Your task to perform on an android device: allow cookies in the chrome app Image 0: 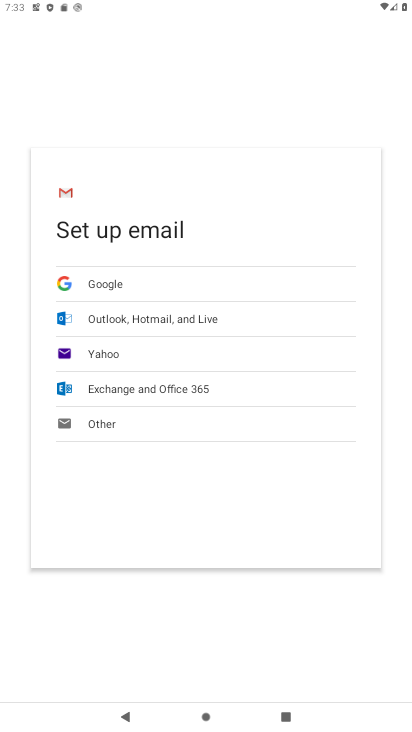
Step 0: press home button
Your task to perform on an android device: allow cookies in the chrome app Image 1: 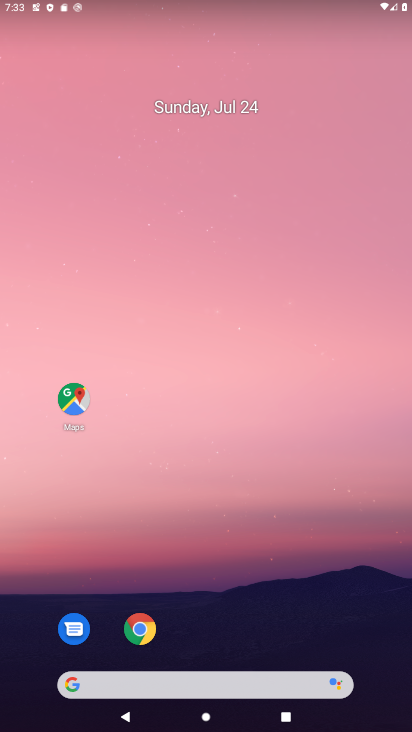
Step 1: drag from (333, 615) to (371, 147)
Your task to perform on an android device: allow cookies in the chrome app Image 2: 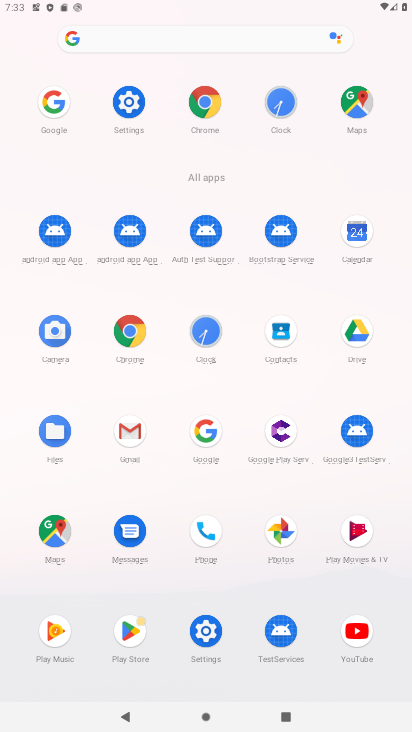
Step 2: click (133, 333)
Your task to perform on an android device: allow cookies in the chrome app Image 3: 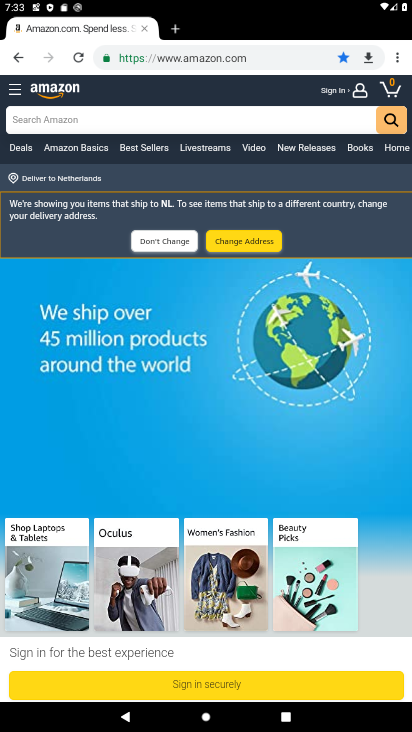
Step 3: click (396, 57)
Your task to perform on an android device: allow cookies in the chrome app Image 4: 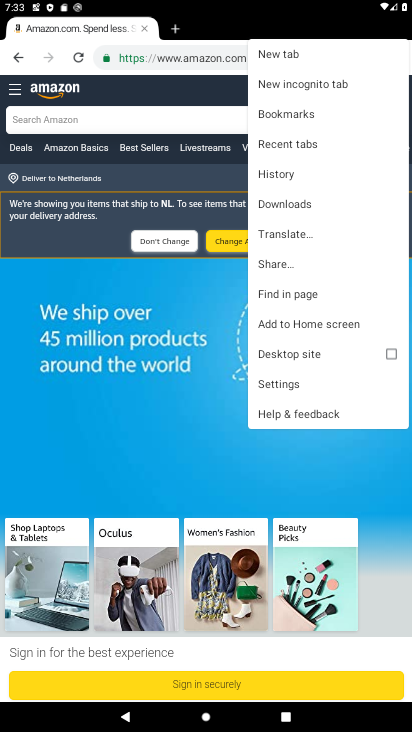
Step 4: click (293, 384)
Your task to perform on an android device: allow cookies in the chrome app Image 5: 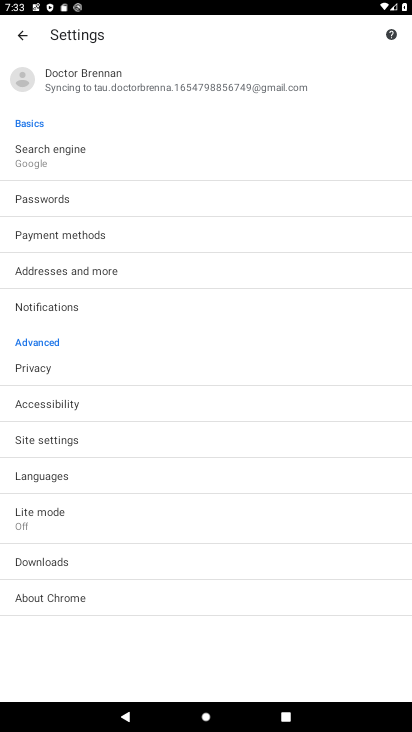
Step 5: drag from (299, 524) to (296, 406)
Your task to perform on an android device: allow cookies in the chrome app Image 6: 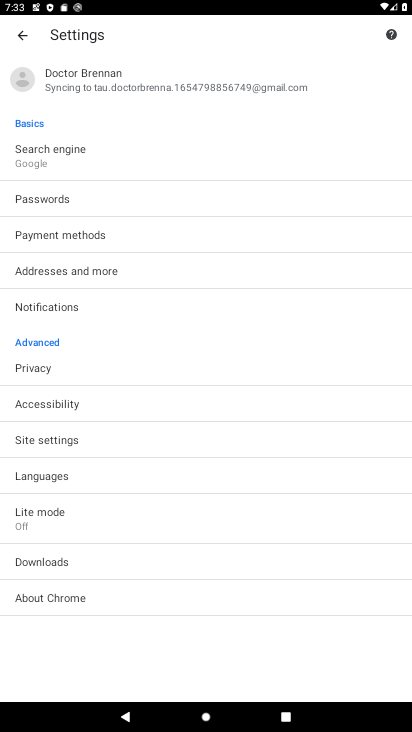
Step 6: drag from (293, 255) to (290, 398)
Your task to perform on an android device: allow cookies in the chrome app Image 7: 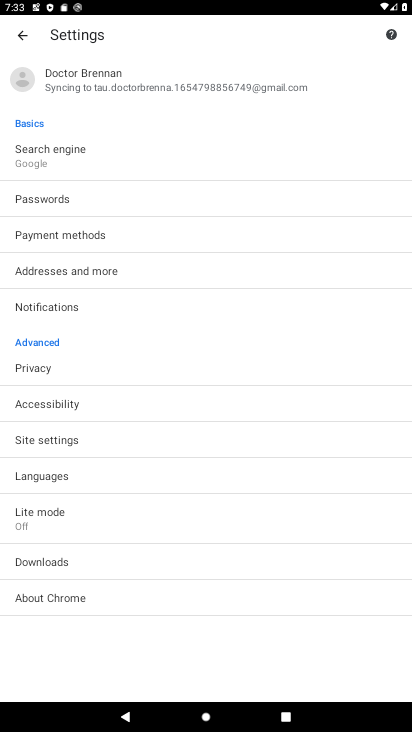
Step 7: click (269, 441)
Your task to perform on an android device: allow cookies in the chrome app Image 8: 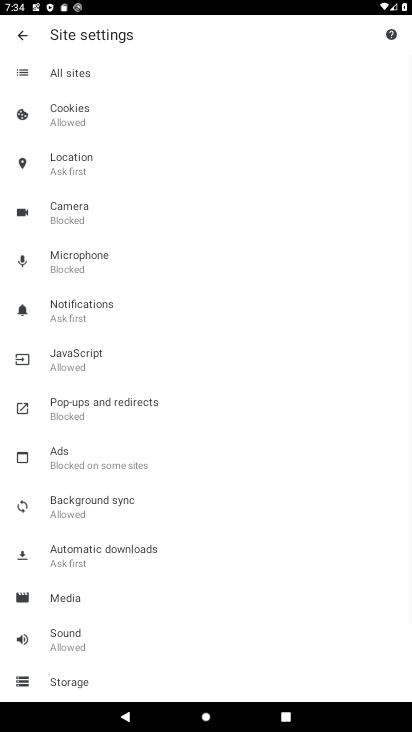
Step 8: drag from (283, 485) to (311, 363)
Your task to perform on an android device: allow cookies in the chrome app Image 9: 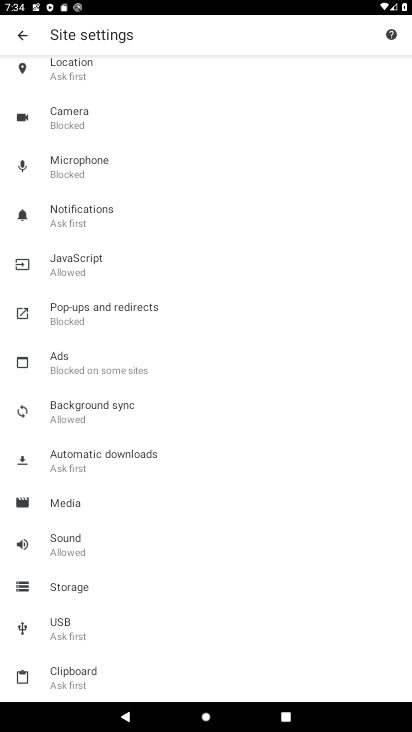
Step 9: drag from (337, 544) to (369, 270)
Your task to perform on an android device: allow cookies in the chrome app Image 10: 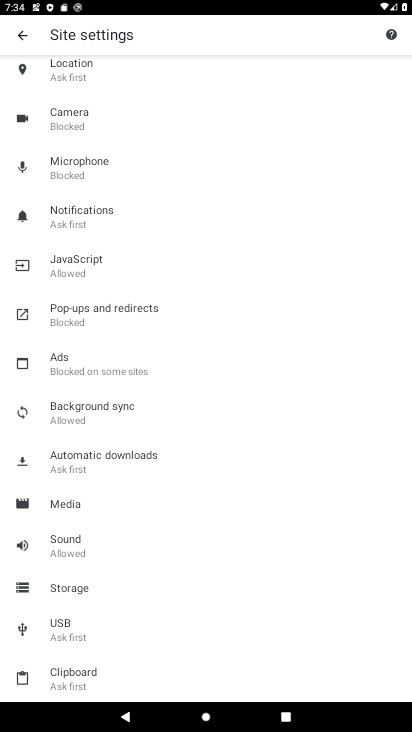
Step 10: drag from (343, 173) to (342, 305)
Your task to perform on an android device: allow cookies in the chrome app Image 11: 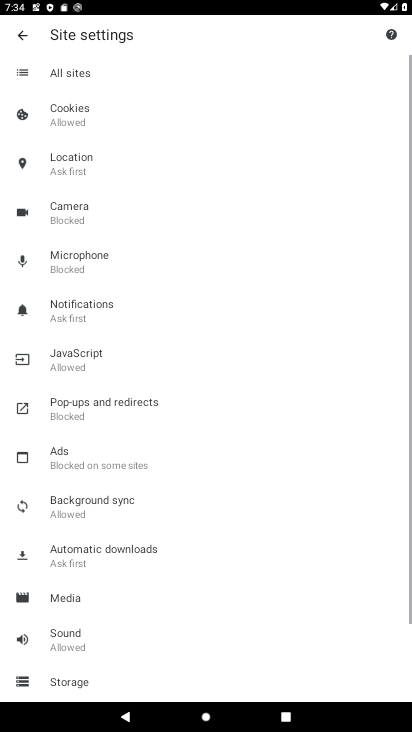
Step 11: drag from (333, 152) to (319, 351)
Your task to perform on an android device: allow cookies in the chrome app Image 12: 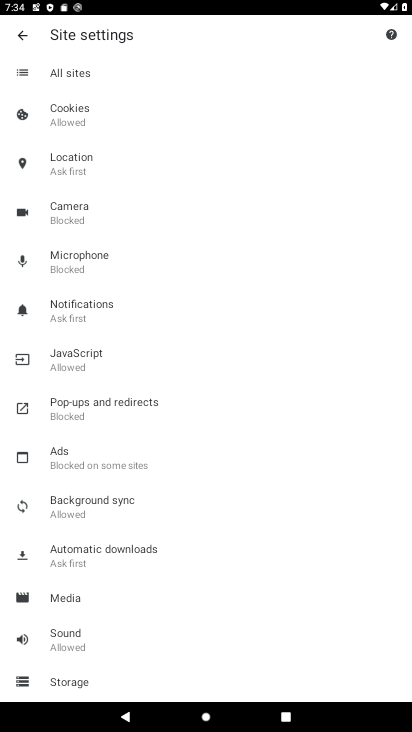
Step 12: click (126, 110)
Your task to perform on an android device: allow cookies in the chrome app Image 13: 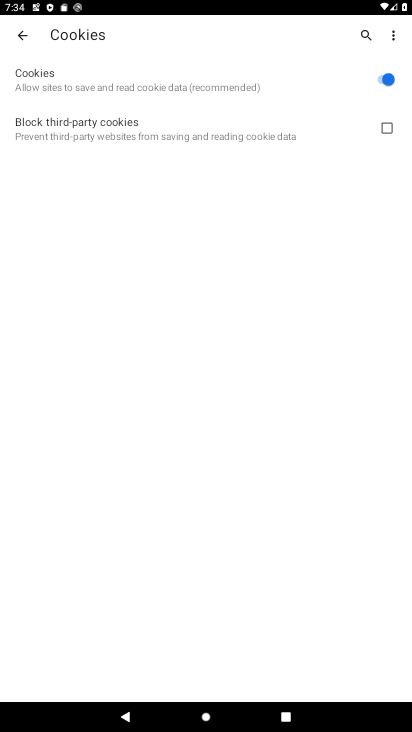
Step 13: task complete